Your task to perform on an android device: Go to display settings Image 0: 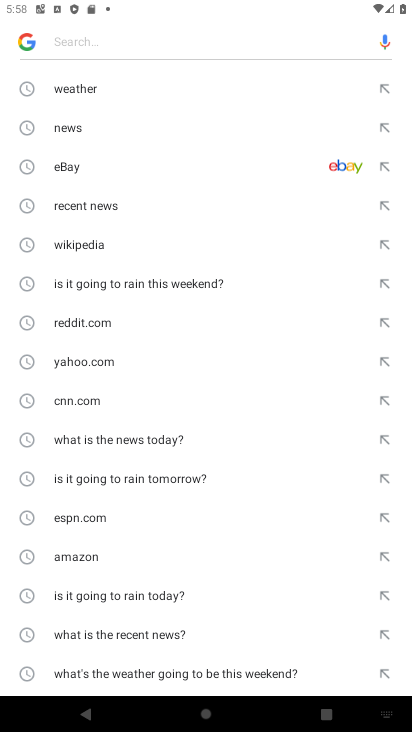
Step 0: press home button
Your task to perform on an android device: Go to display settings Image 1: 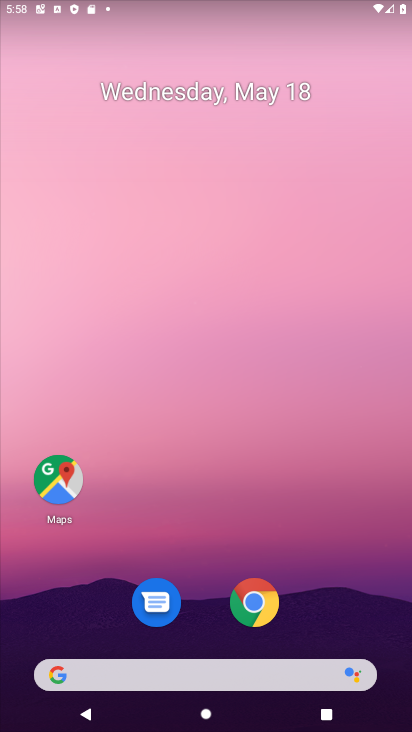
Step 1: drag from (205, 660) to (275, 12)
Your task to perform on an android device: Go to display settings Image 2: 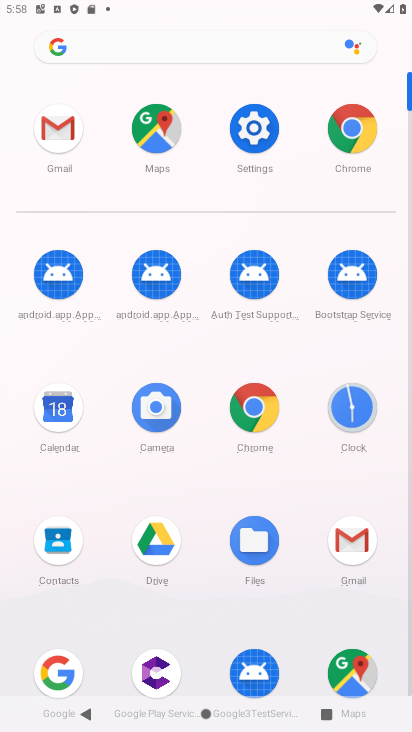
Step 2: click (277, 119)
Your task to perform on an android device: Go to display settings Image 3: 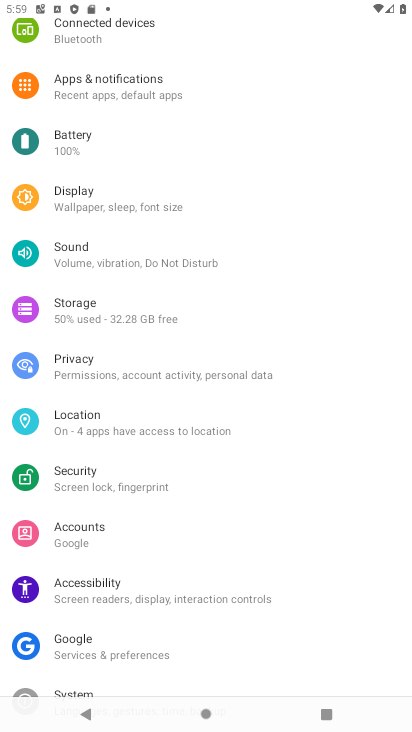
Step 3: click (126, 206)
Your task to perform on an android device: Go to display settings Image 4: 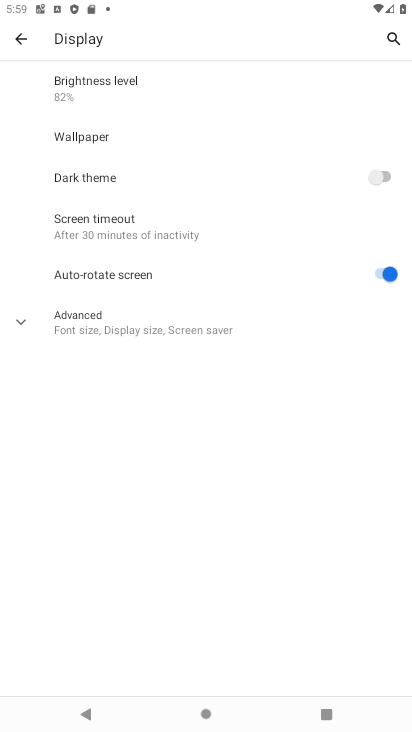
Step 4: task complete